Your task to perform on an android device: Go to sound settings Image 0: 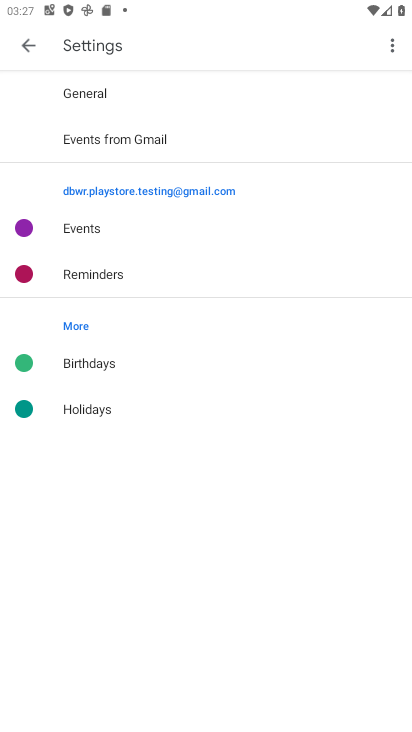
Step 0: press home button
Your task to perform on an android device: Go to sound settings Image 1: 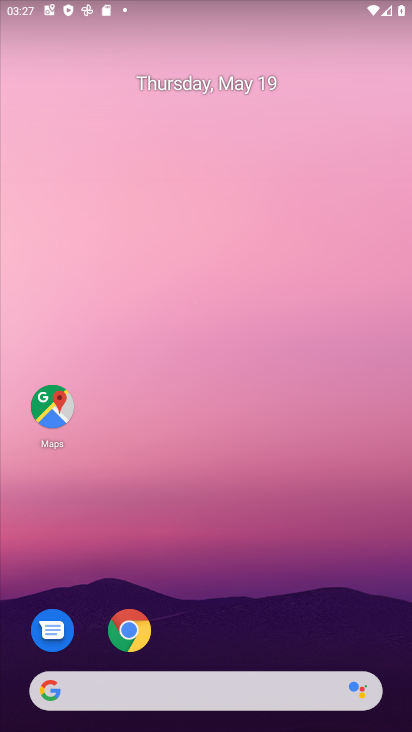
Step 1: drag from (389, 649) to (338, 89)
Your task to perform on an android device: Go to sound settings Image 2: 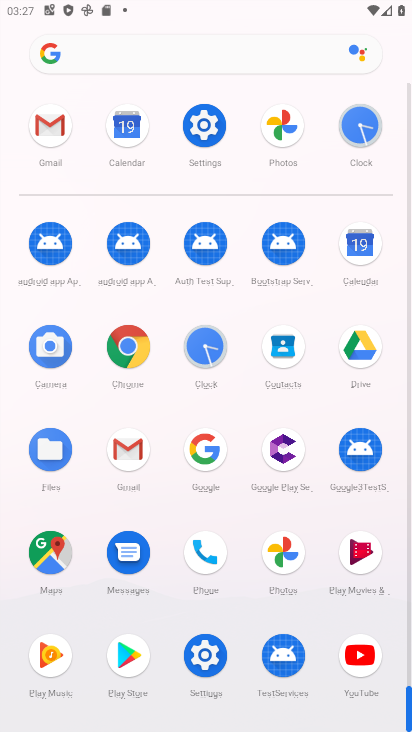
Step 2: click (205, 656)
Your task to perform on an android device: Go to sound settings Image 3: 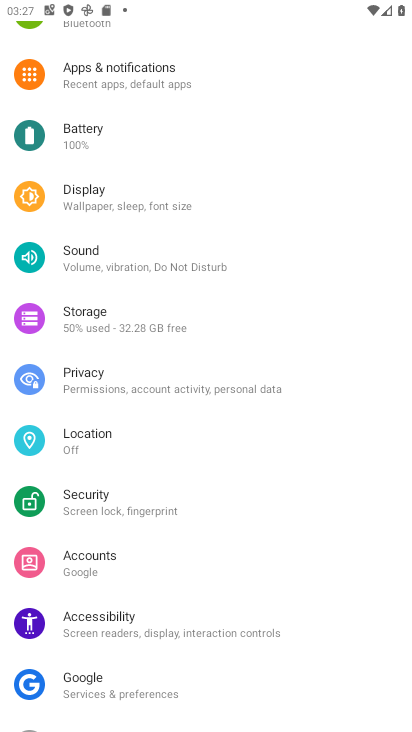
Step 3: click (85, 252)
Your task to perform on an android device: Go to sound settings Image 4: 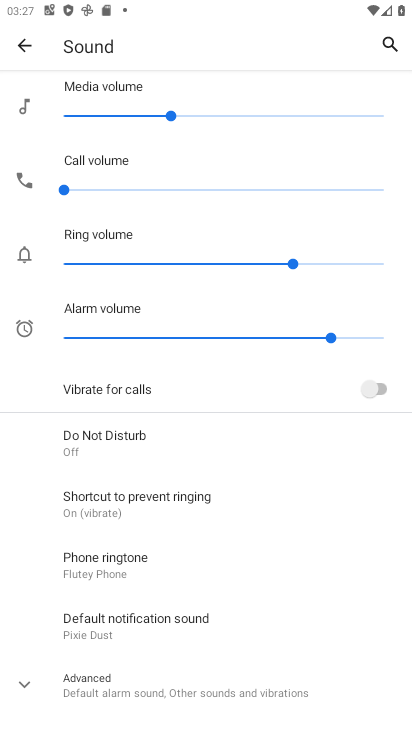
Step 4: drag from (259, 622) to (268, 424)
Your task to perform on an android device: Go to sound settings Image 5: 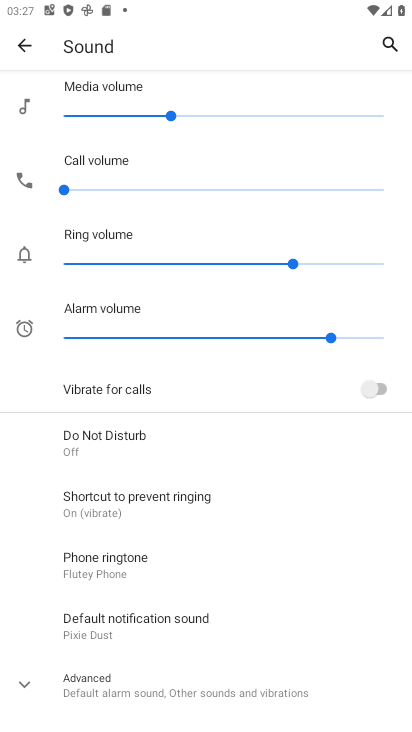
Step 5: click (23, 683)
Your task to perform on an android device: Go to sound settings Image 6: 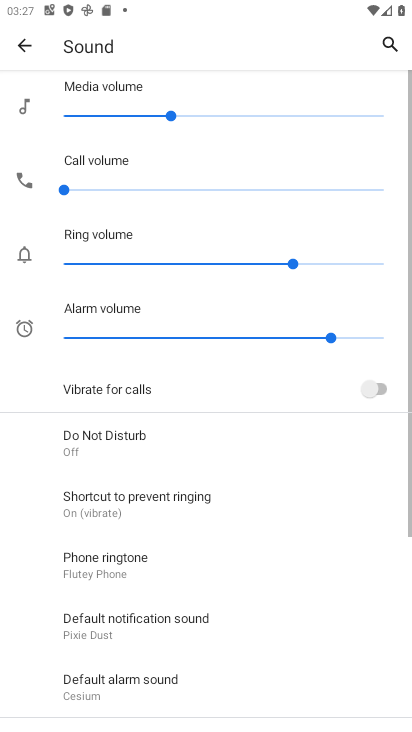
Step 6: task complete